Your task to perform on an android device: Go to CNN.com Image 0: 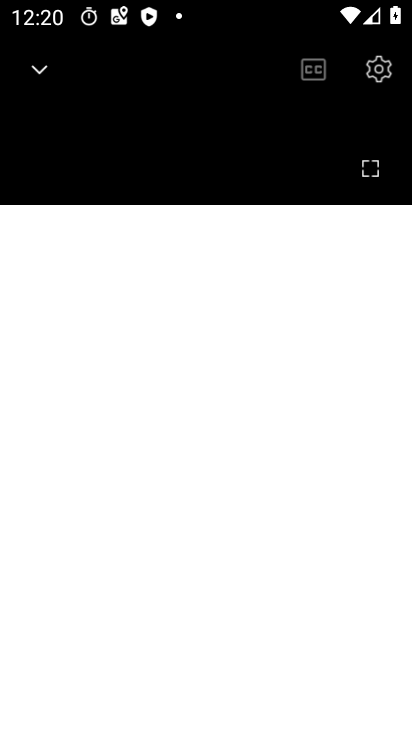
Step 0: press home button
Your task to perform on an android device: Go to CNN.com Image 1: 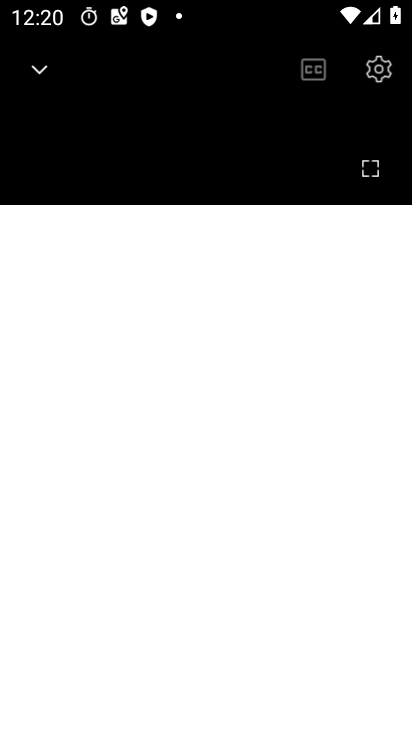
Step 1: click (391, 176)
Your task to perform on an android device: Go to CNN.com Image 2: 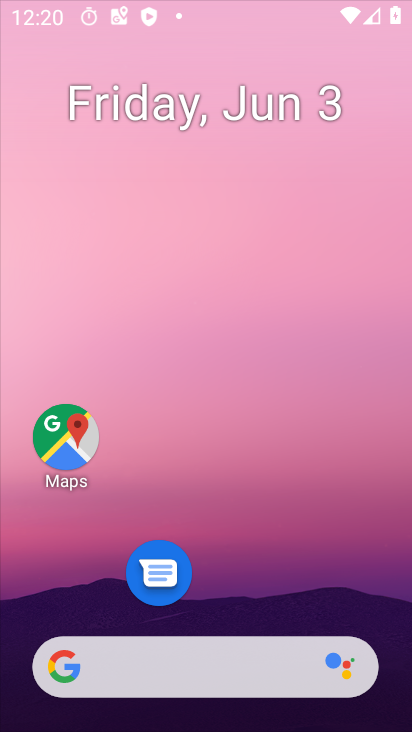
Step 2: press home button
Your task to perform on an android device: Go to CNN.com Image 3: 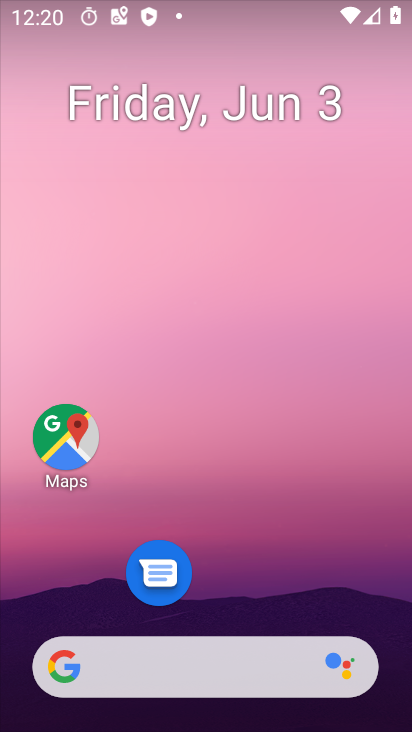
Step 3: drag from (287, 669) to (271, 104)
Your task to perform on an android device: Go to CNN.com Image 4: 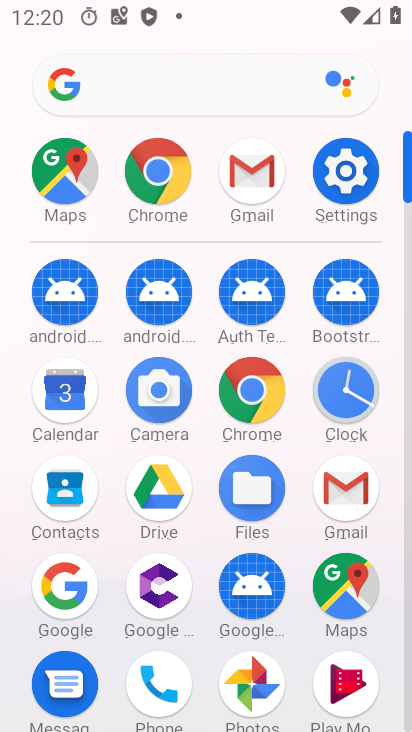
Step 4: click (254, 357)
Your task to perform on an android device: Go to CNN.com Image 5: 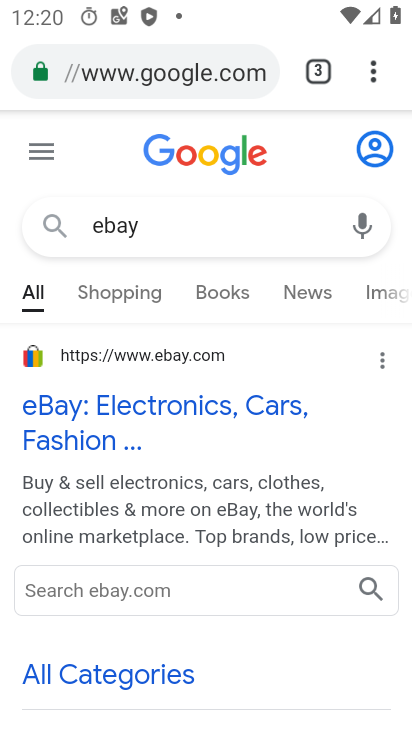
Step 5: click (192, 67)
Your task to perform on an android device: Go to CNN.com Image 6: 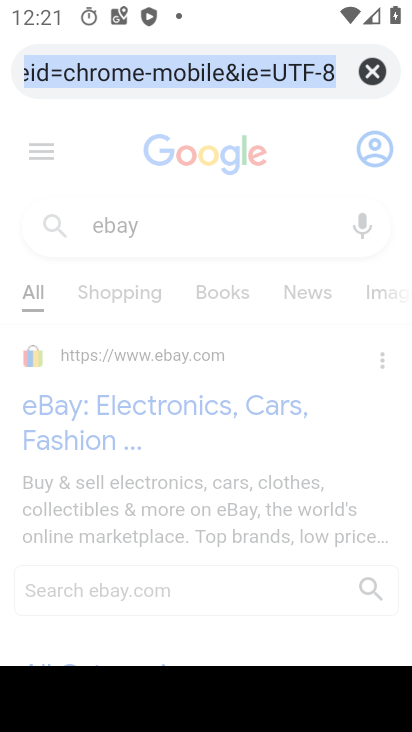
Step 6: type "cnn.com"
Your task to perform on an android device: Go to CNN.com Image 7: 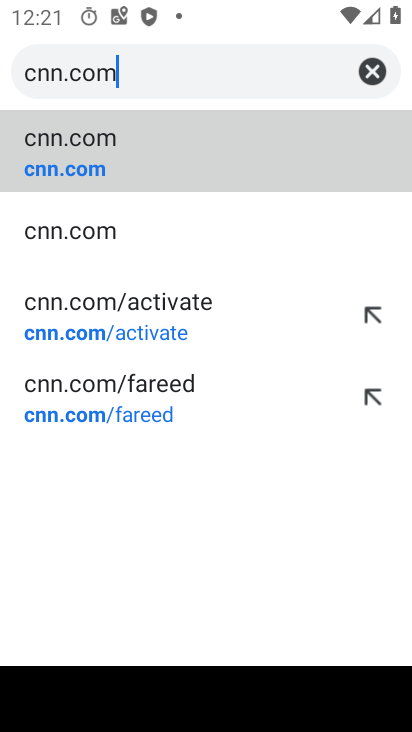
Step 7: click (58, 154)
Your task to perform on an android device: Go to CNN.com Image 8: 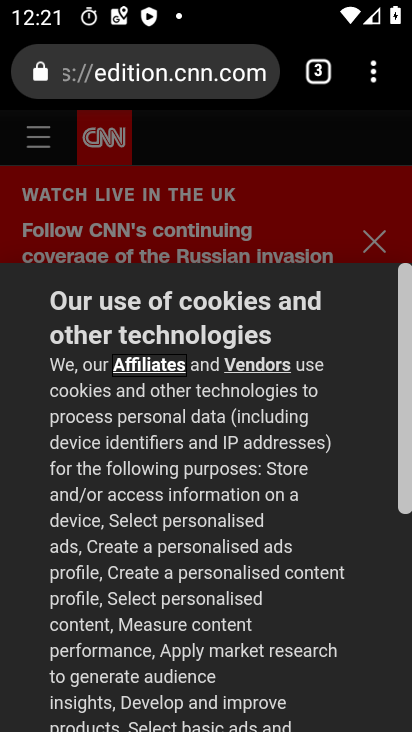
Step 8: task complete